Your task to perform on an android device: search for starred emails in the gmail app Image 0: 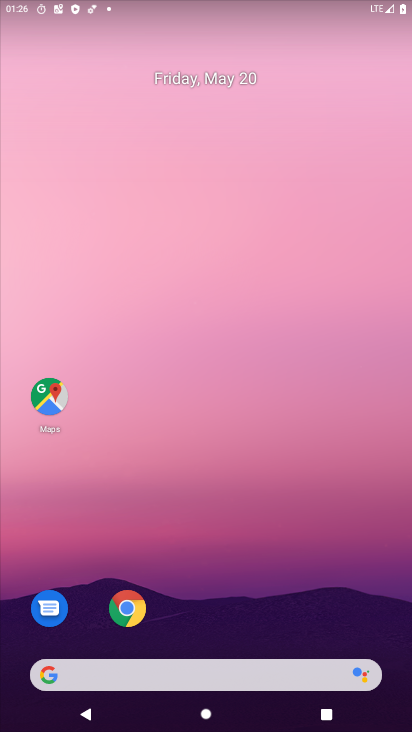
Step 0: drag from (344, 637) to (265, 144)
Your task to perform on an android device: search for starred emails in the gmail app Image 1: 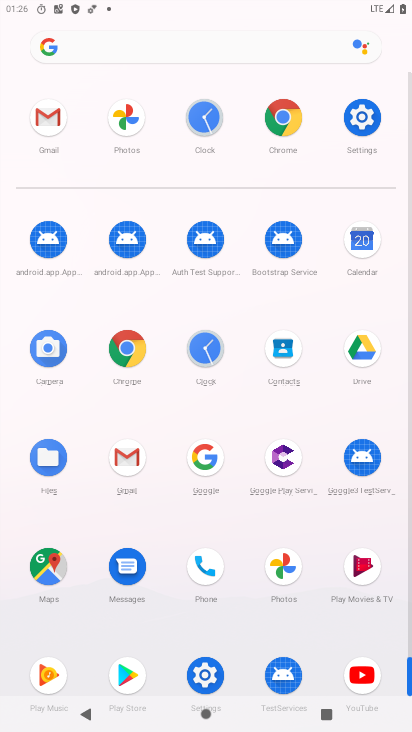
Step 1: click (142, 461)
Your task to perform on an android device: search for starred emails in the gmail app Image 2: 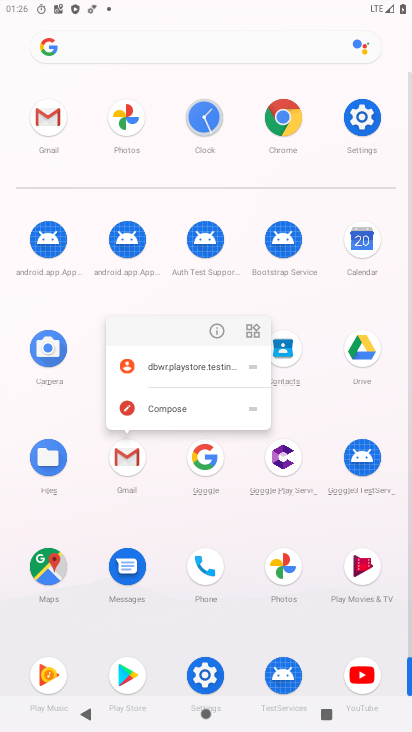
Step 2: click (125, 465)
Your task to perform on an android device: search for starred emails in the gmail app Image 3: 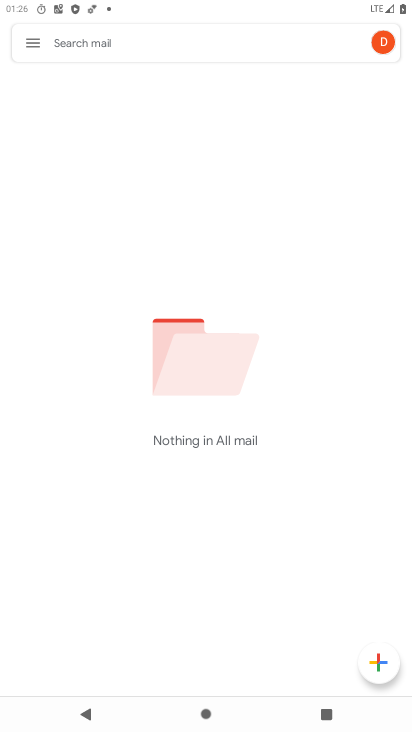
Step 3: click (32, 44)
Your task to perform on an android device: search for starred emails in the gmail app Image 4: 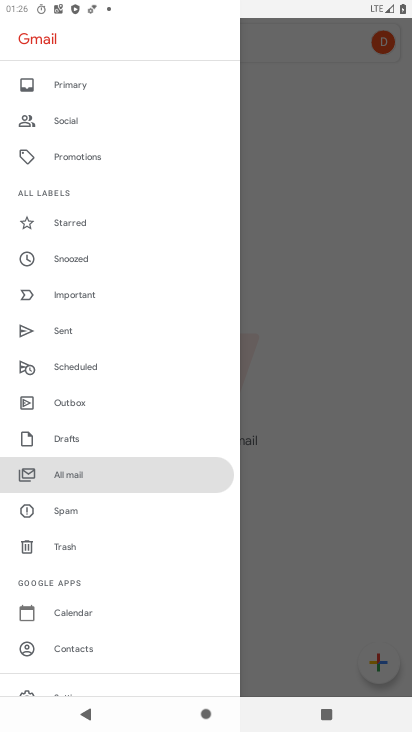
Step 4: click (88, 220)
Your task to perform on an android device: search for starred emails in the gmail app Image 5: 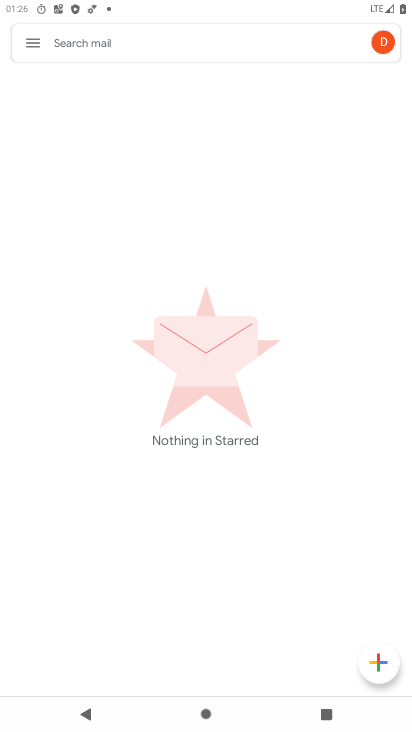
Step 5: task complete